Your task to perform on an android device: check data usage Image 0: 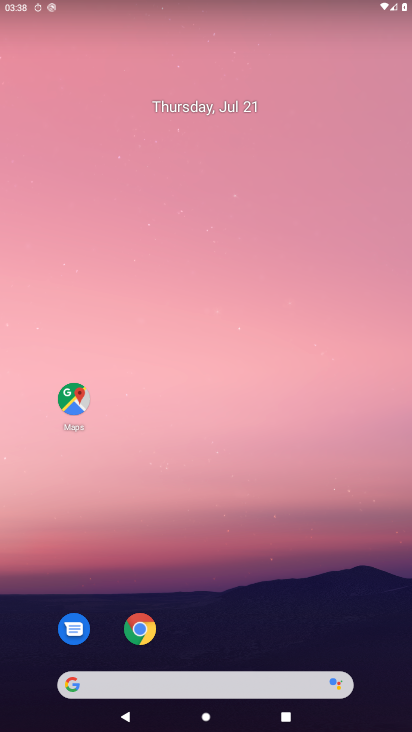
Step 0: drag from (46, 670) to (331, 40)
Your task to perform on an android device: check data usage Image 1: 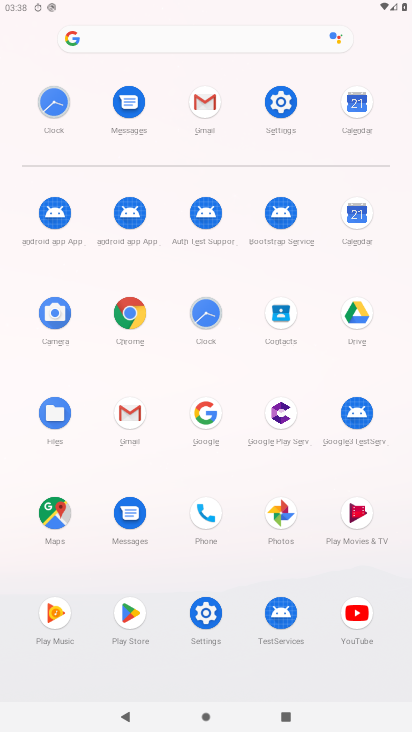
Step 1: click (205, 604)
Your task to perform on an android device: check data usage Image 2: 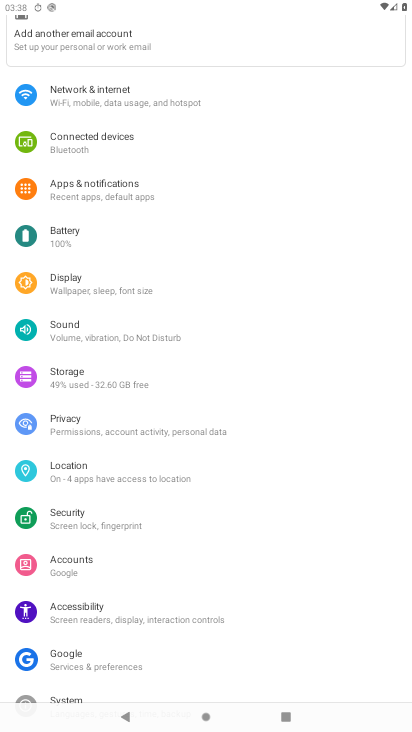
Step 2: click (125, 98)
Your task to perform on an android device: check data usage Image 3: 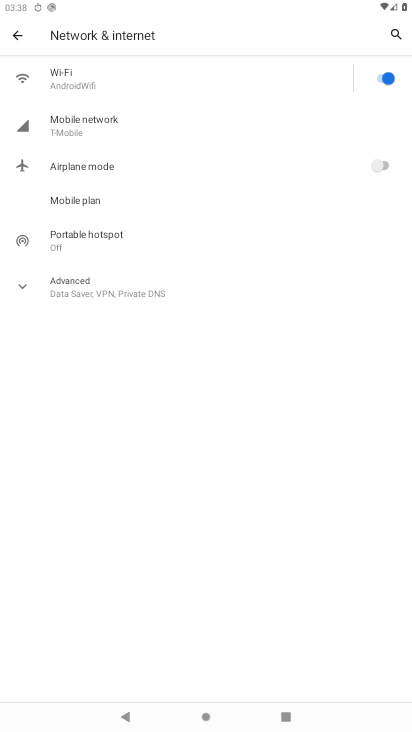
Step 3: click (131, 114)
Your task to perform on an android device: check data usage Image 4: 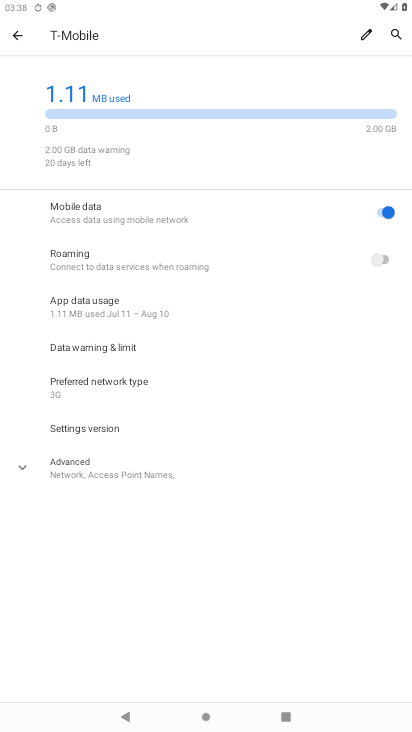
Step 4: task complete